Your task to perform on an android device: turn on bluetooth scan Image 0: 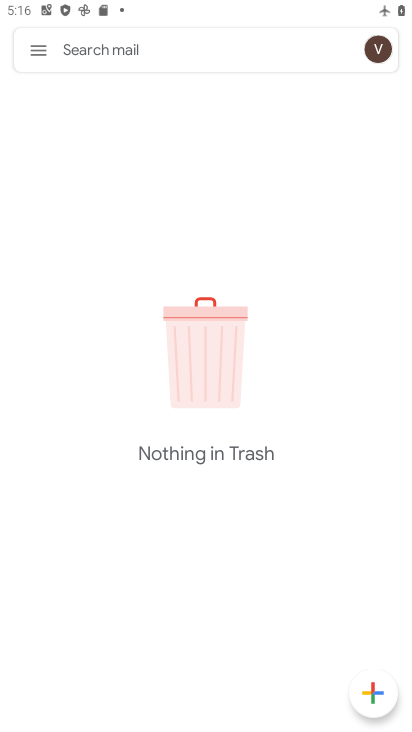
Step 0: press home button
Your task to perform on an android device: turn on bluetooth scan Image 1: 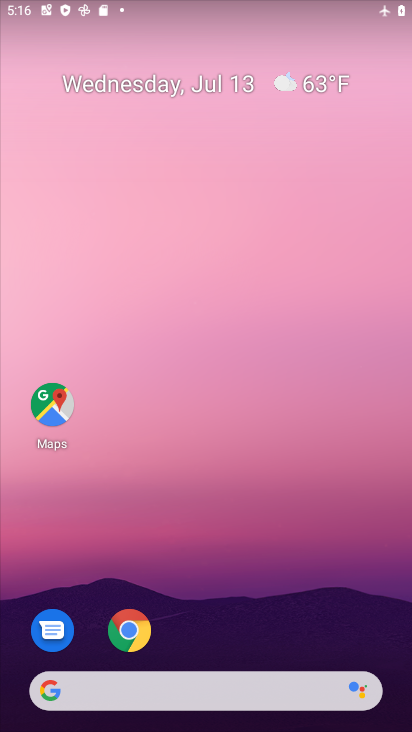
Step 1: drag from (218, 517) to (218, 1)
Your task to perform on an android device: turn on bluetooth scan Image 2: 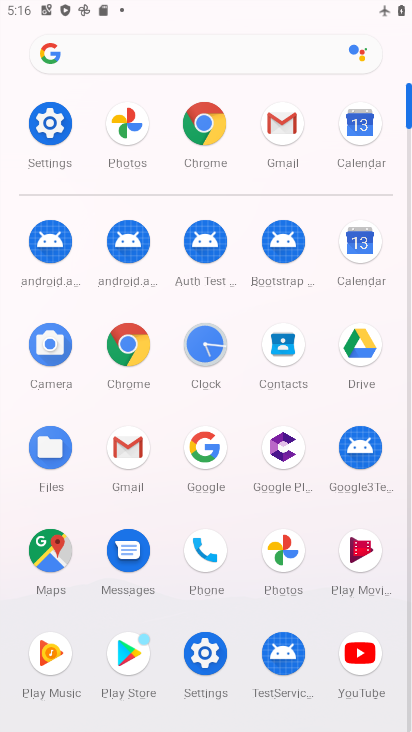
Step 2: click (52, 111)
Your task to perform on an android device: turn on bluetooth scan Image 3: 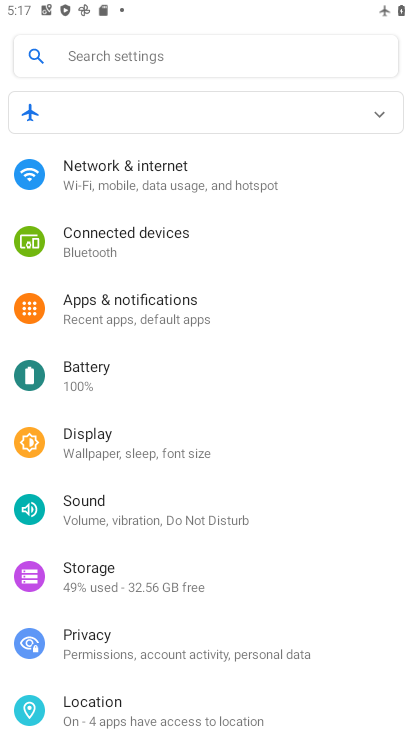
Step 3: drag from (242, 613) to (169, 162)
Your task to perform on an android device: turn on bluetooth scan Image 4: 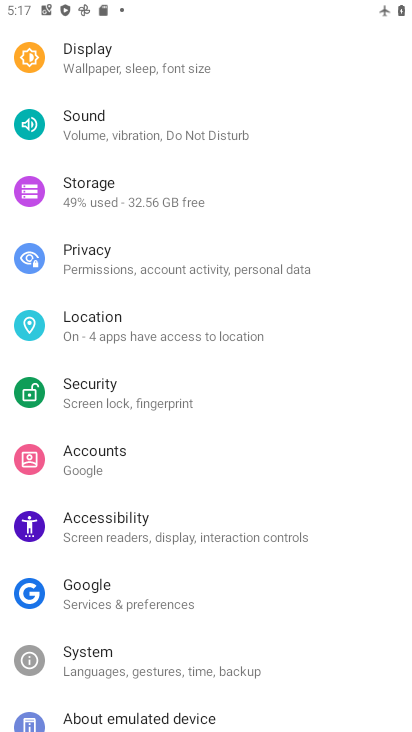
Step 4: click (100, 330)
Your task to perform on an android device: turn on bluetooth scan Image 5: 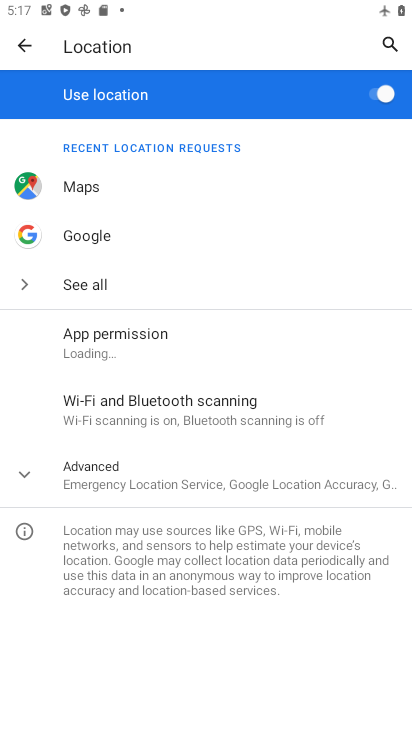
Step 5: click (120, 412)
Your task to perform on an android device: turn on bluetooth scan Image 6: 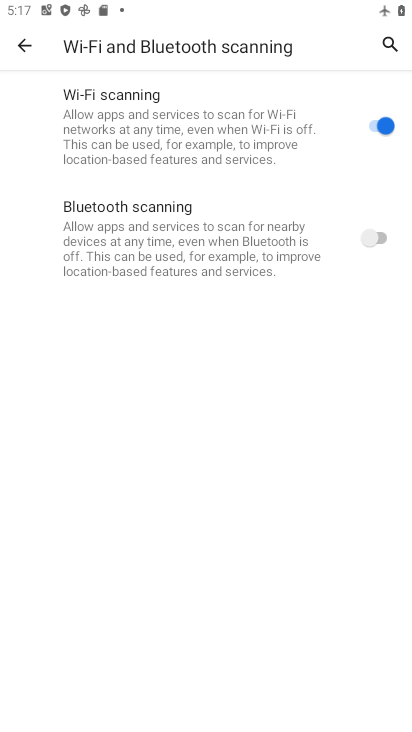
Step 6: click (375, 234)
Your task to perform on an android device: turn on bluetooth scan Image 7: 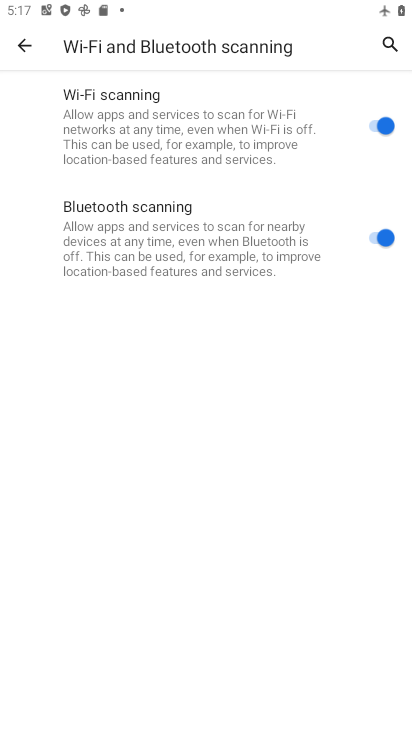
Step 7: task complete